Your task to perform on an android device: What's the news in theFalkland Islands? Image 0: 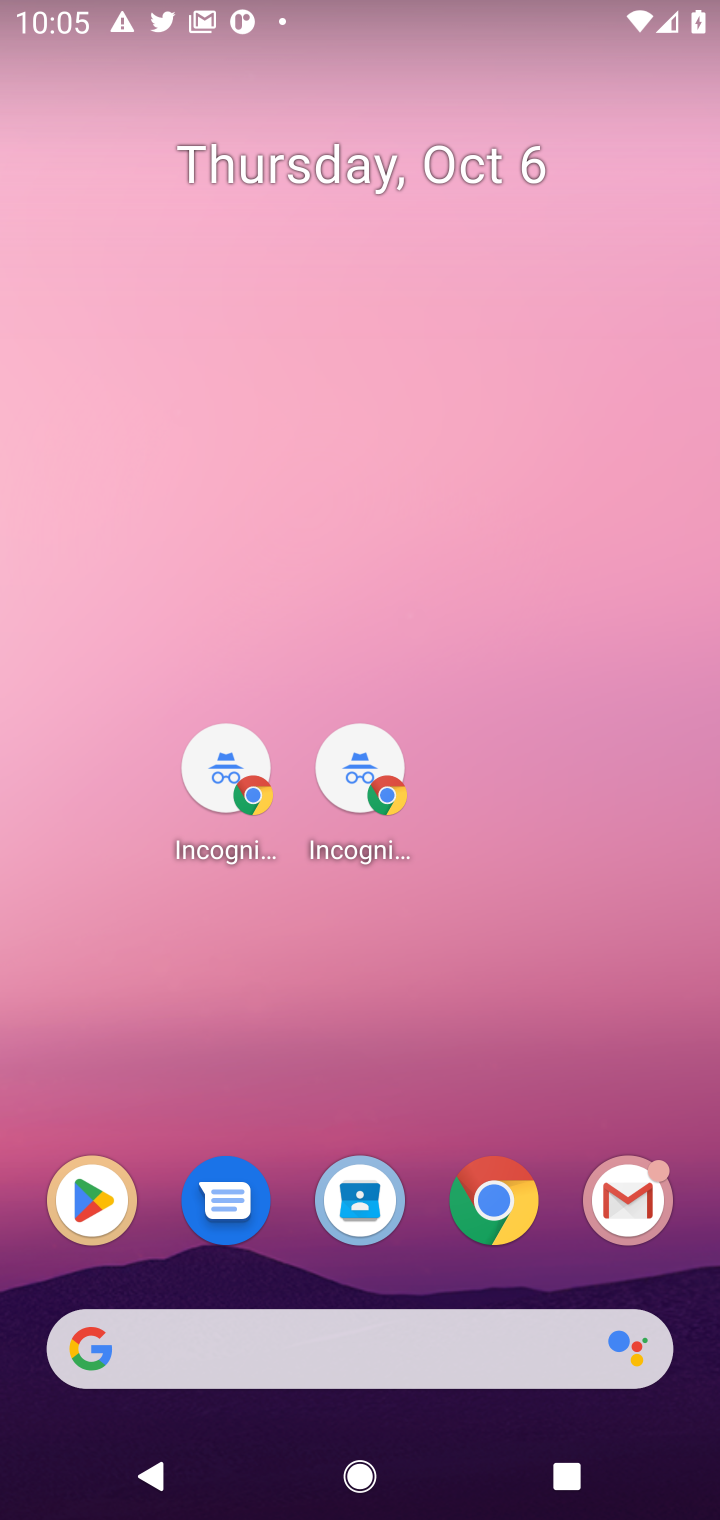
Step 0: press back button
Your task to perform on an android device: What's the news in theFalkland Islands? Image 1: 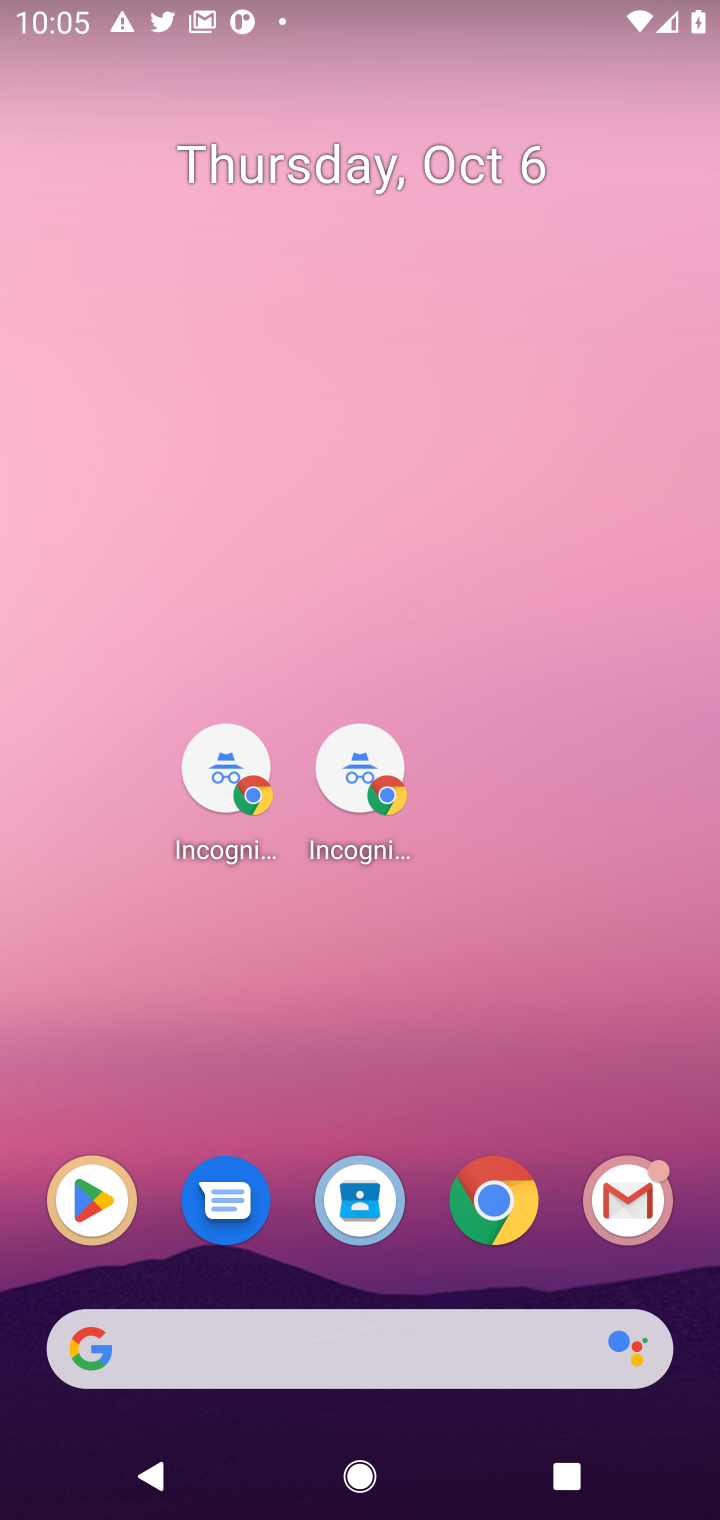
Step 1: press home button
Your task to perform on an android device: What's the news in theFalkland Islands? Image 2: 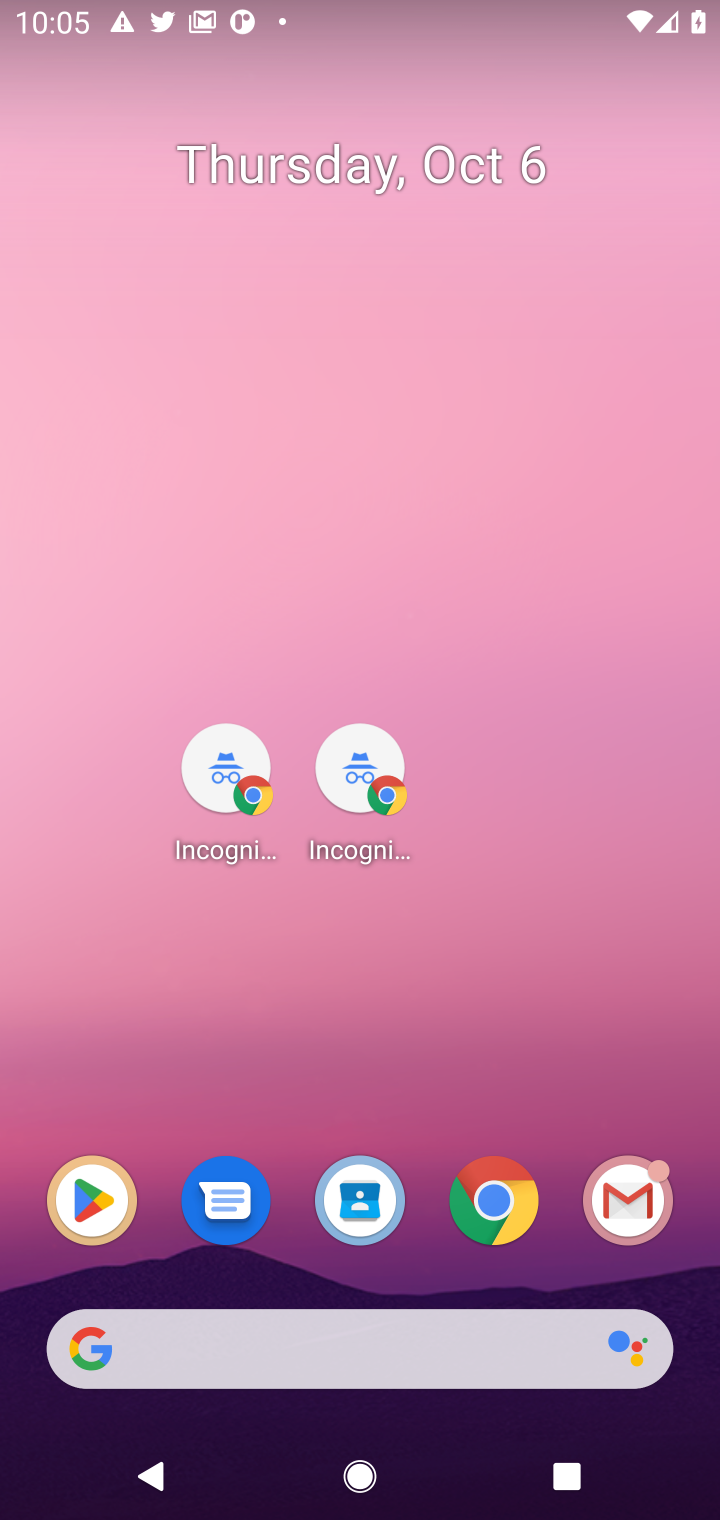
Step 2: click (491, 1193)
Your task to perform on an android device: What's the news in theFalkland Islands? Image 3: 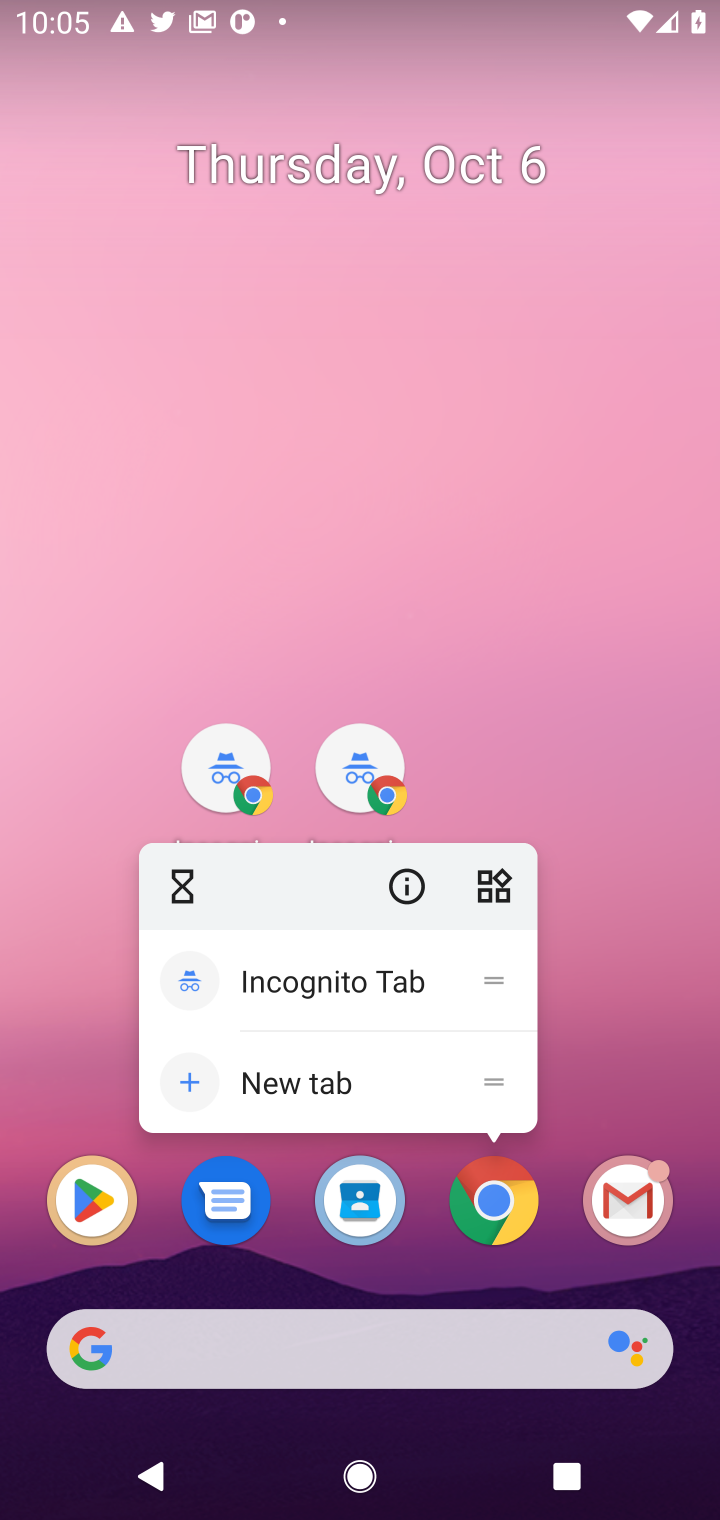
Step 3: press back button
Your task to perform on an android device: What's the news in theFalkland Islands? Image 4: 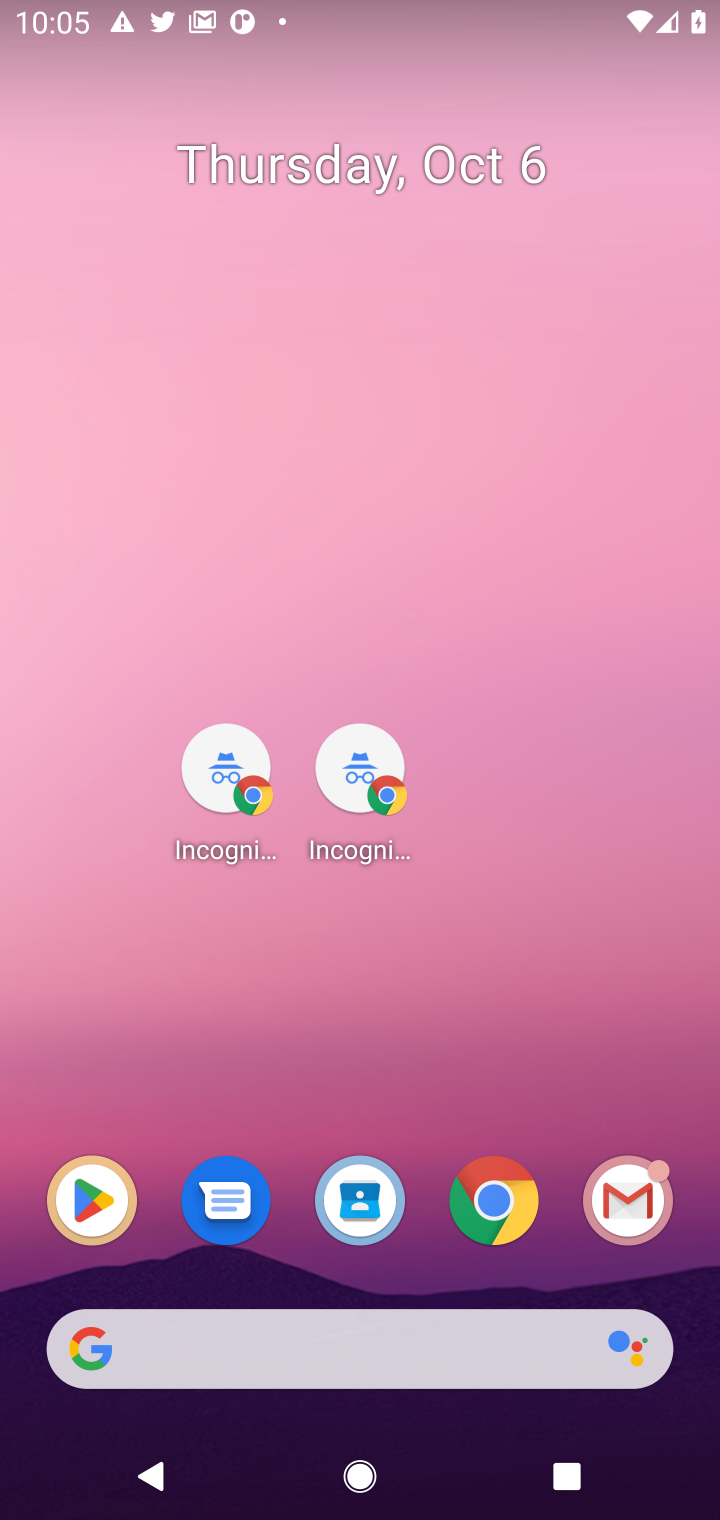
Step 4: press home button
Your task to perform on an android device: What's the news in theFalkland Islands? Image 5: 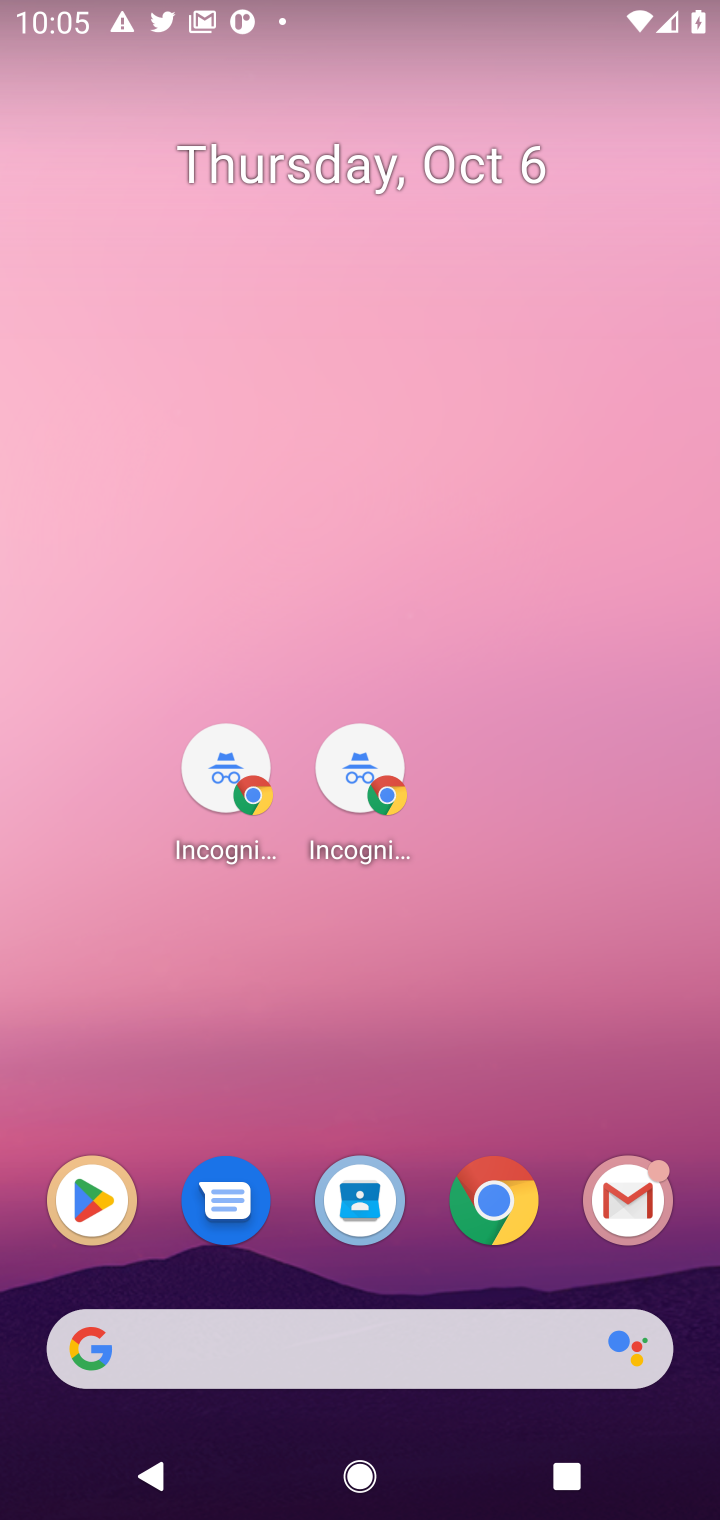
Step 5: press home button
Your task to perform on an android device: What's the news in theFalkland Islands? Image 6: 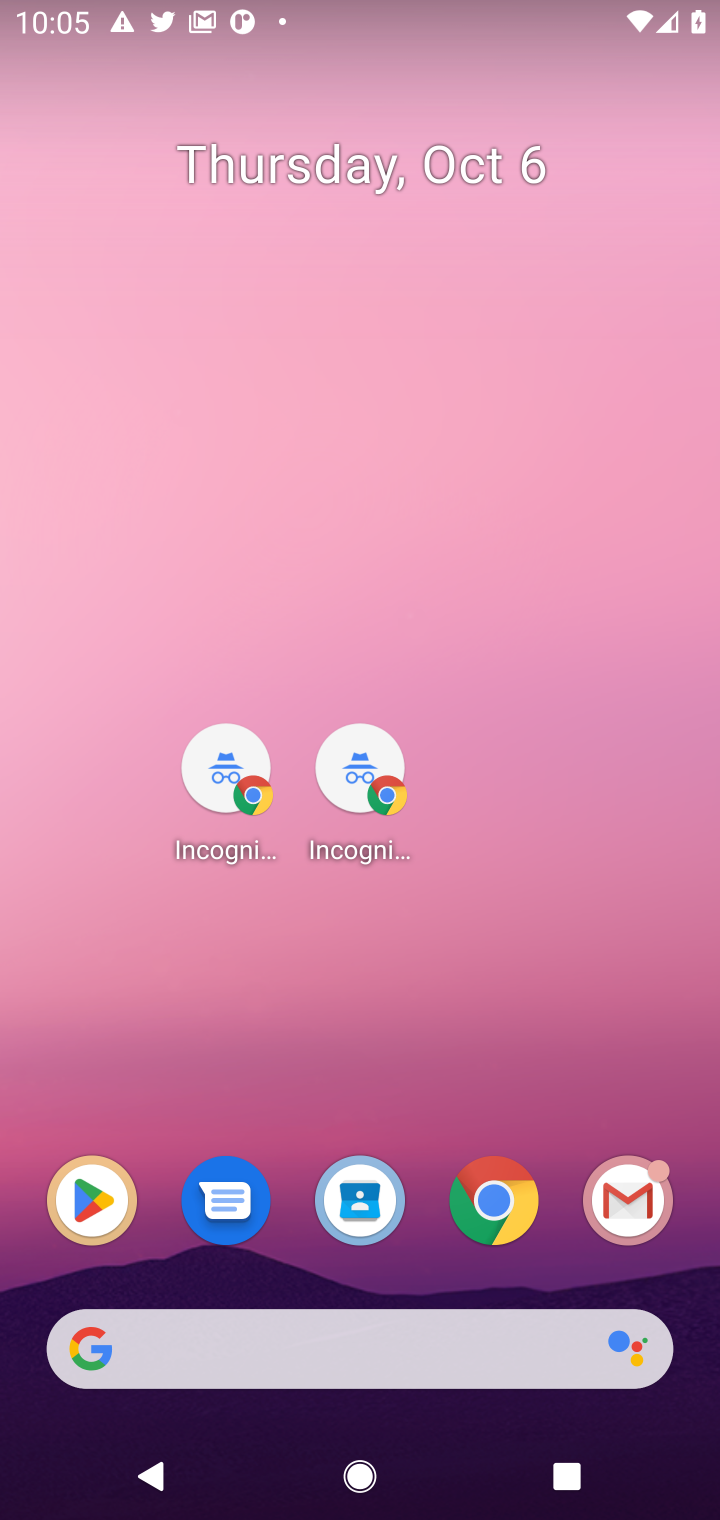
Step 6: click (503, 1204)
Your task to perform on an android device: What's the news in theFalkland Islands? Image 7: 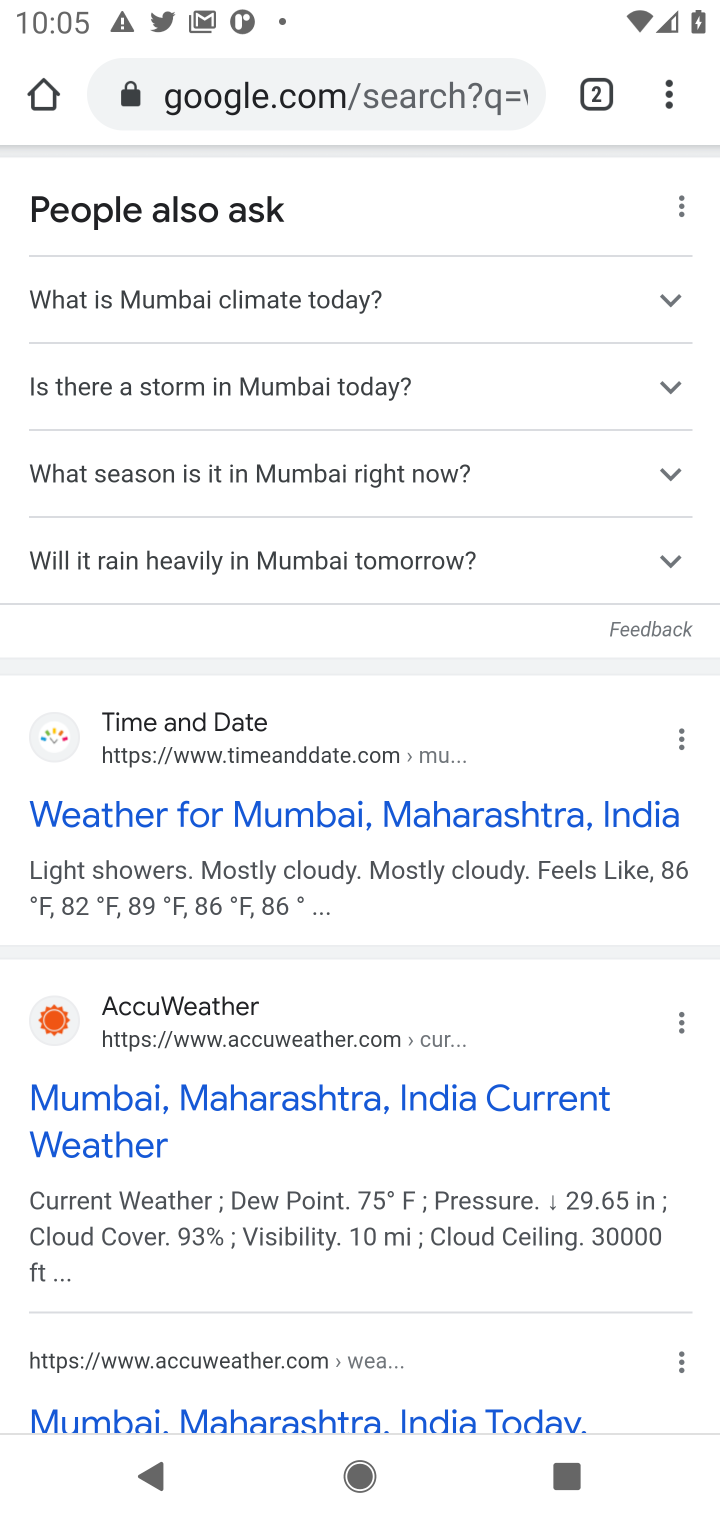
Step 7: click (316, 85)
Your task to perform on an android device: What's the news in theFalkland Islands? Image 8: 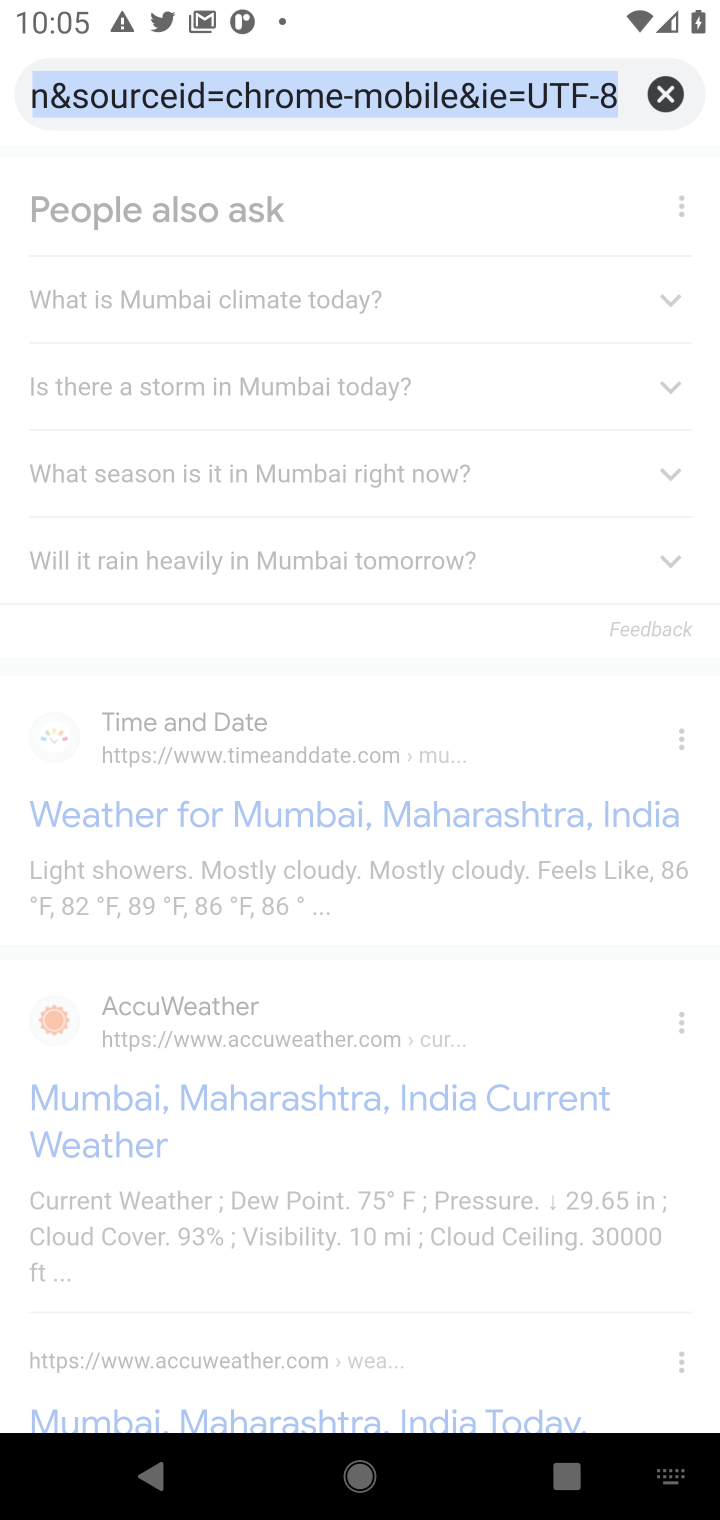
Step 8: click (663, 91)
Your task to perform on an android device: What's the news in theFalkland Islands? Image 9: 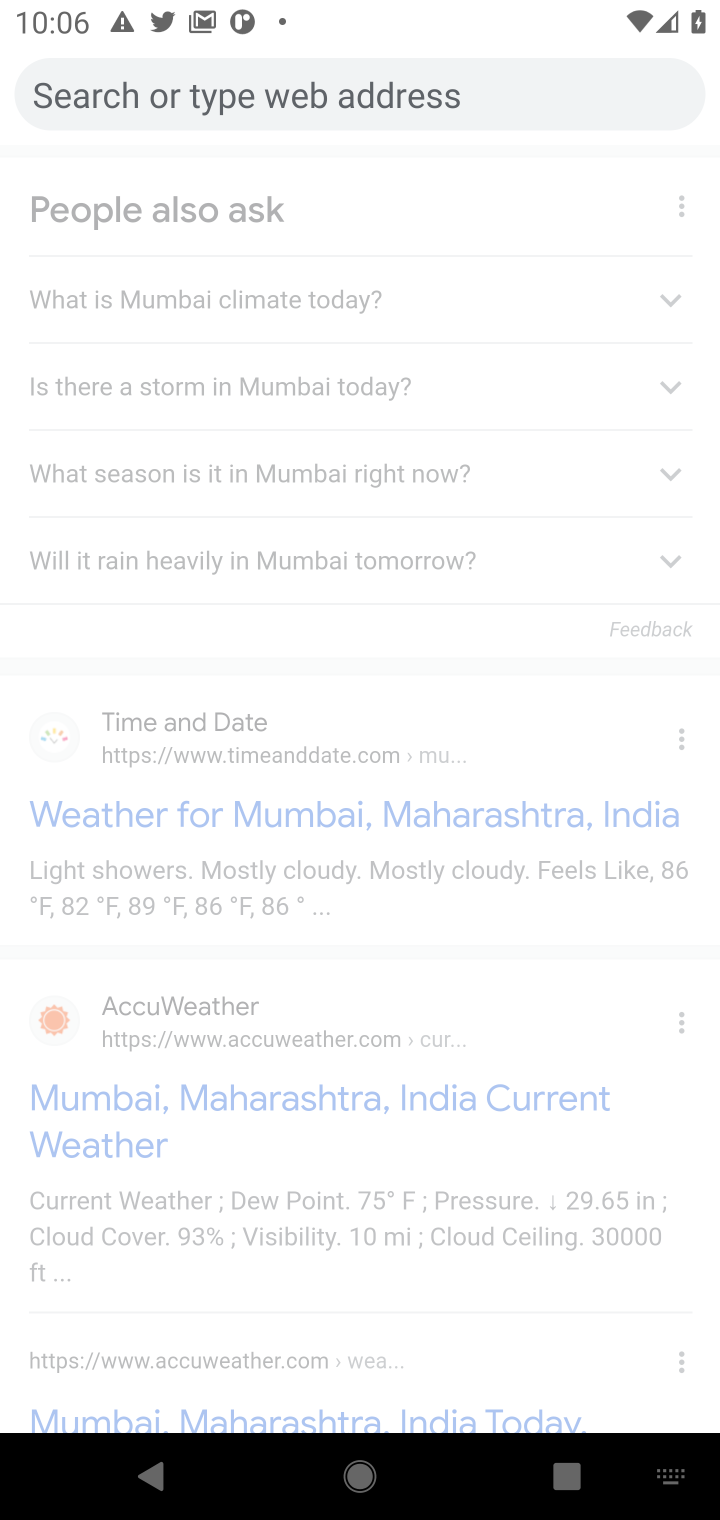
Step 9: type "new in the falkland islands"
Your task to perform on an android device: What's the news in theFalkland Islands? Image 10: 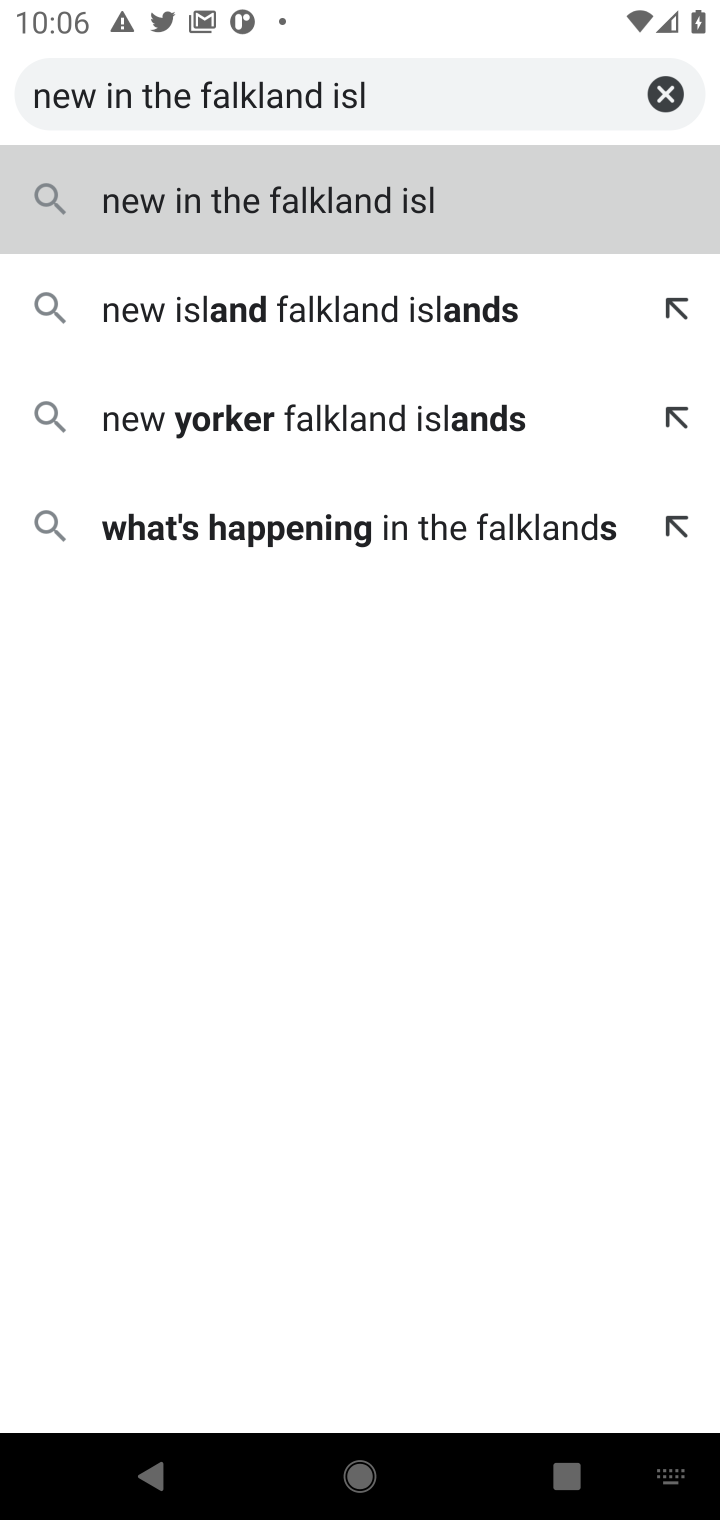
Step 10: click (300, 321)
Your task to perform on an android device: What's the news in theFalkland Islands? Image 11: 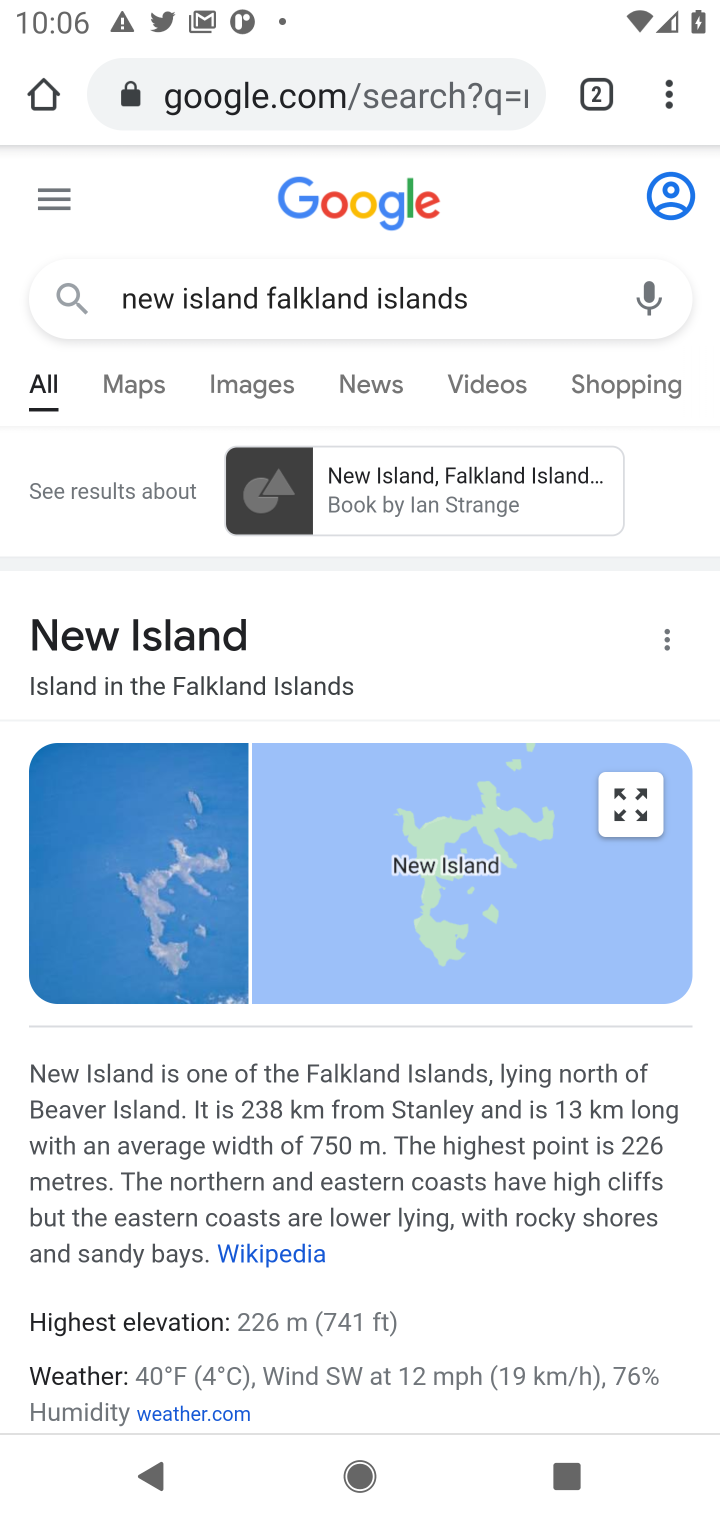
Step 11: drag from (464, 1309) to (508, 448)
Your task to perform on an android device: What's the news in theFalkland Islands? Image 12: 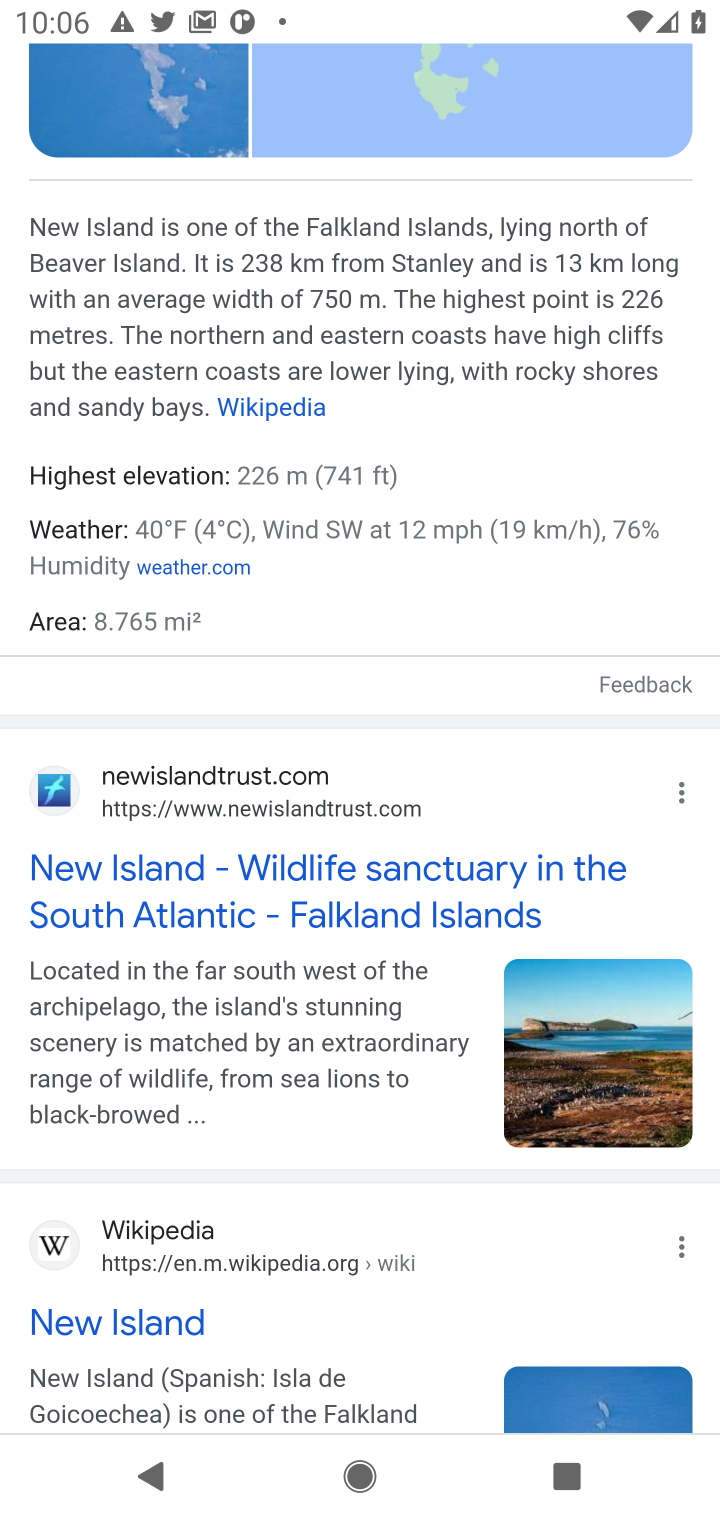
Step 12: click (281, 835)
Your task to perform on an android device: What's the news in theFalkland Islands? Image 13: 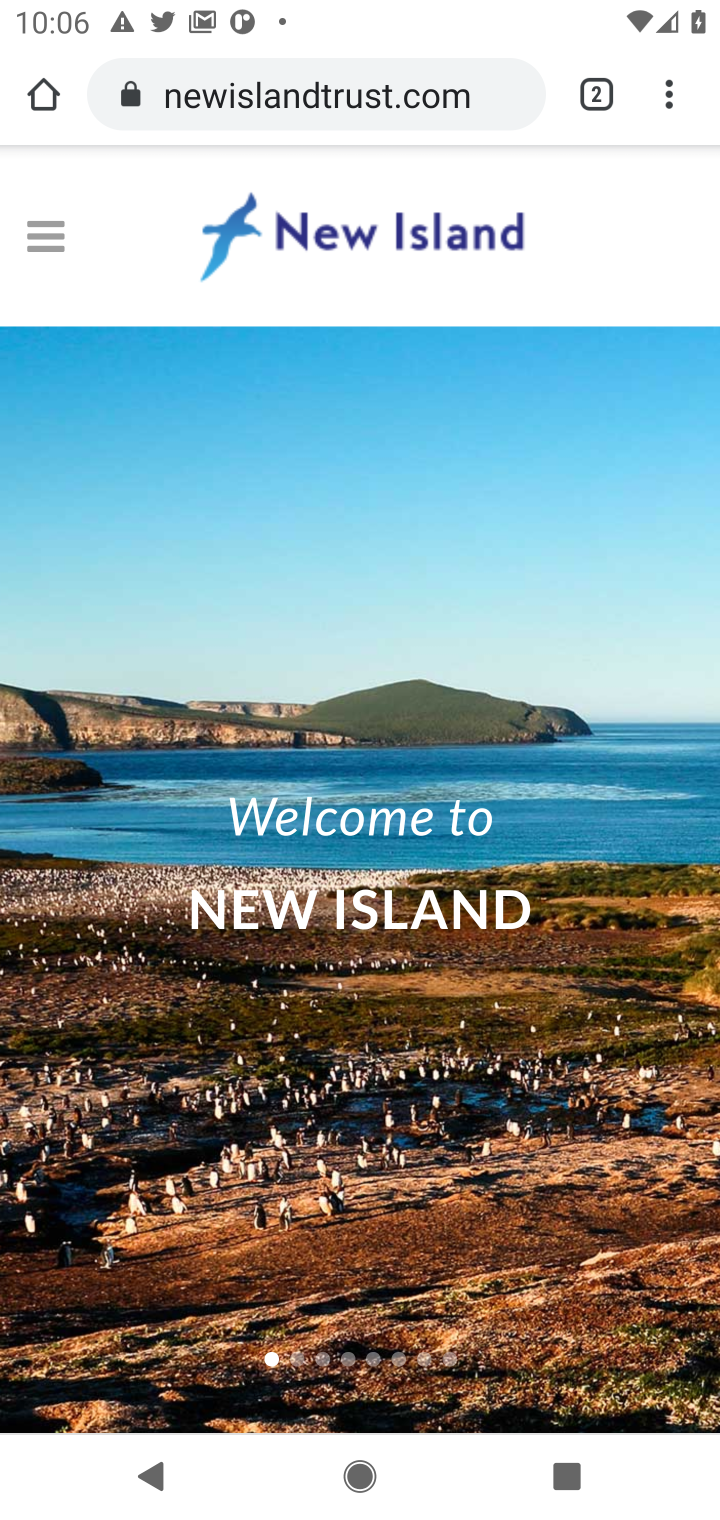
Step 13: drag from (377, 1110) to (417, 603)
Your task to perform on an android device: What's the news in theFalkland Islands? Image 14: 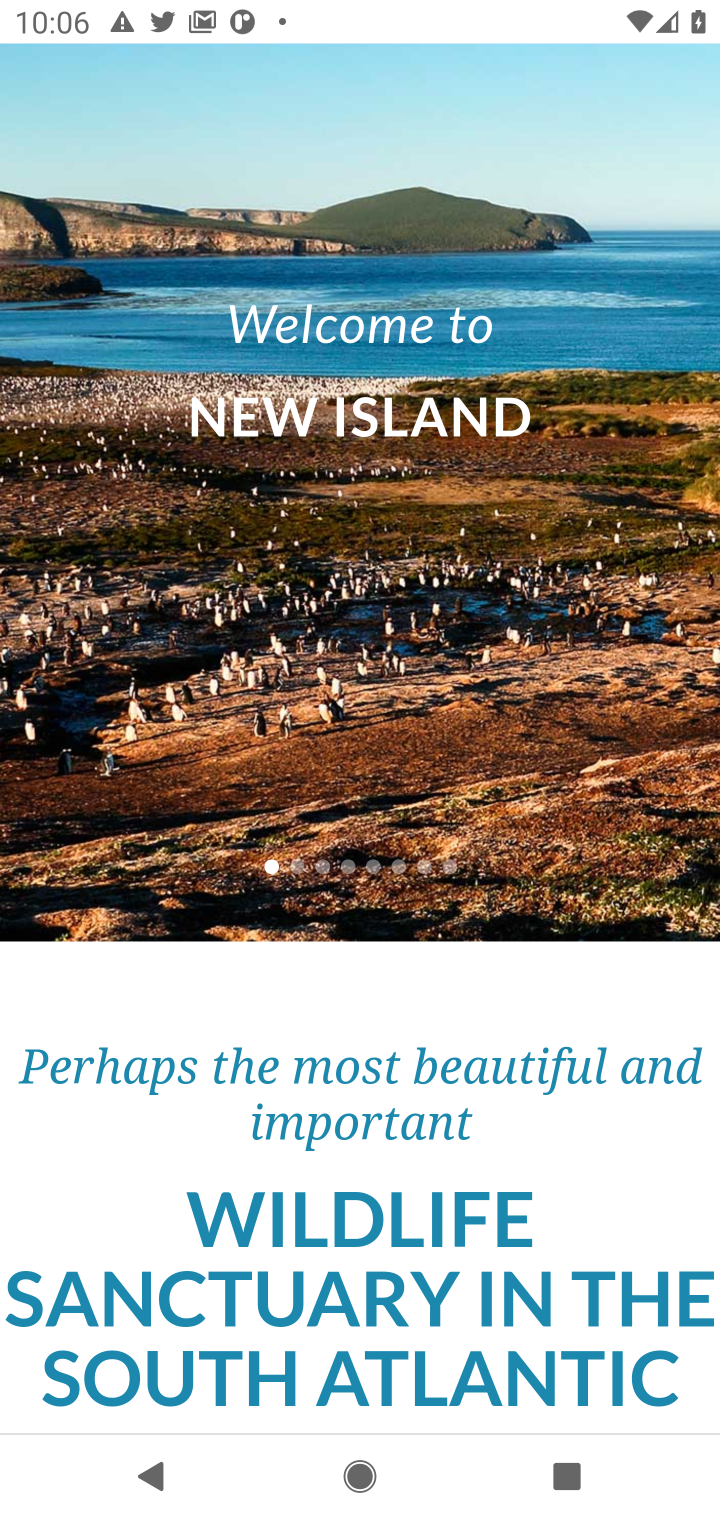
Step 14: drag from (697, 890) to (308, 1513)
Your task to perform on an android device: What's the news in theFalkland Islands? Image 15: 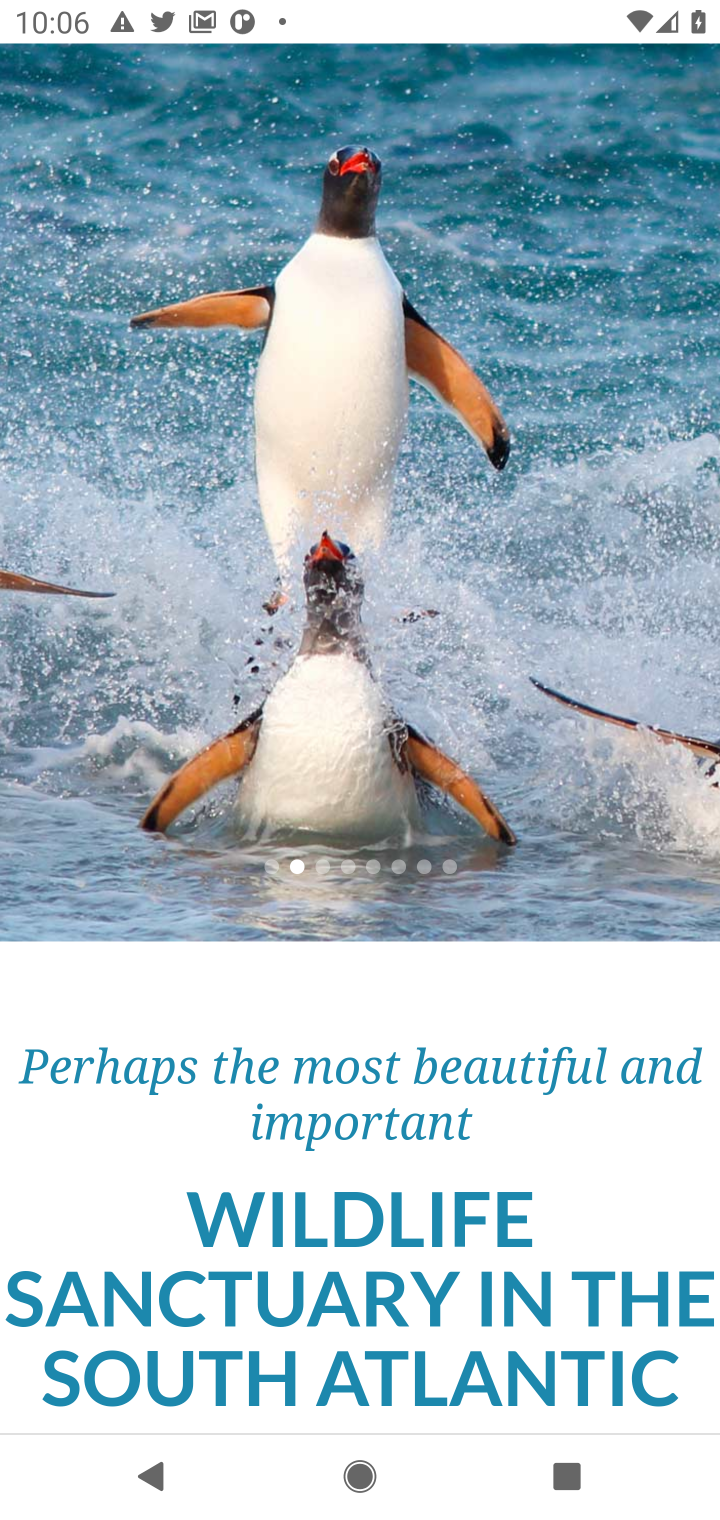
Step 15: drag from (513, 699) to (509, 344)
Your task to perform on an android device: What's the news in theFalkland Islands? Image 16: 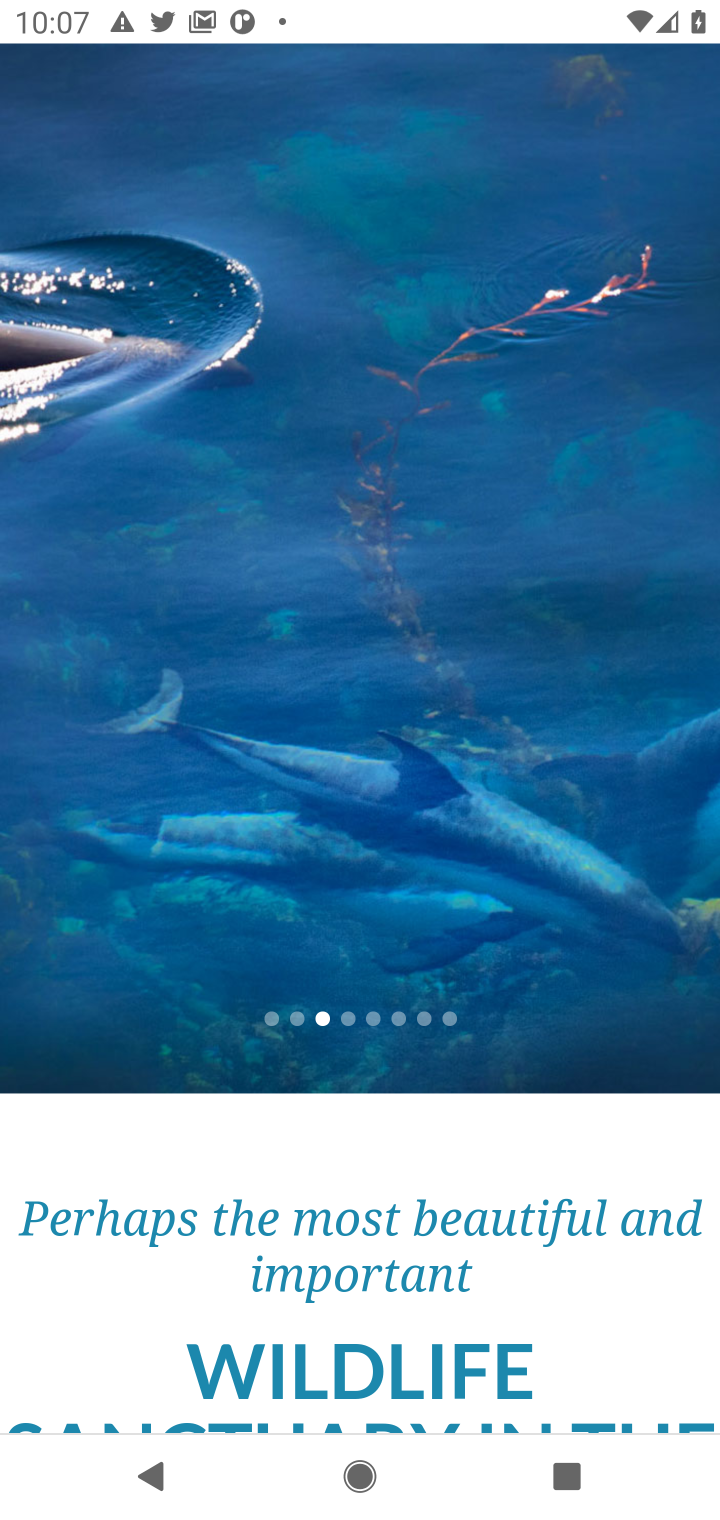
Step 16: click (334, 208)
Your task to perform on an android device: What's the news in theFalkland Islands? Image 17: 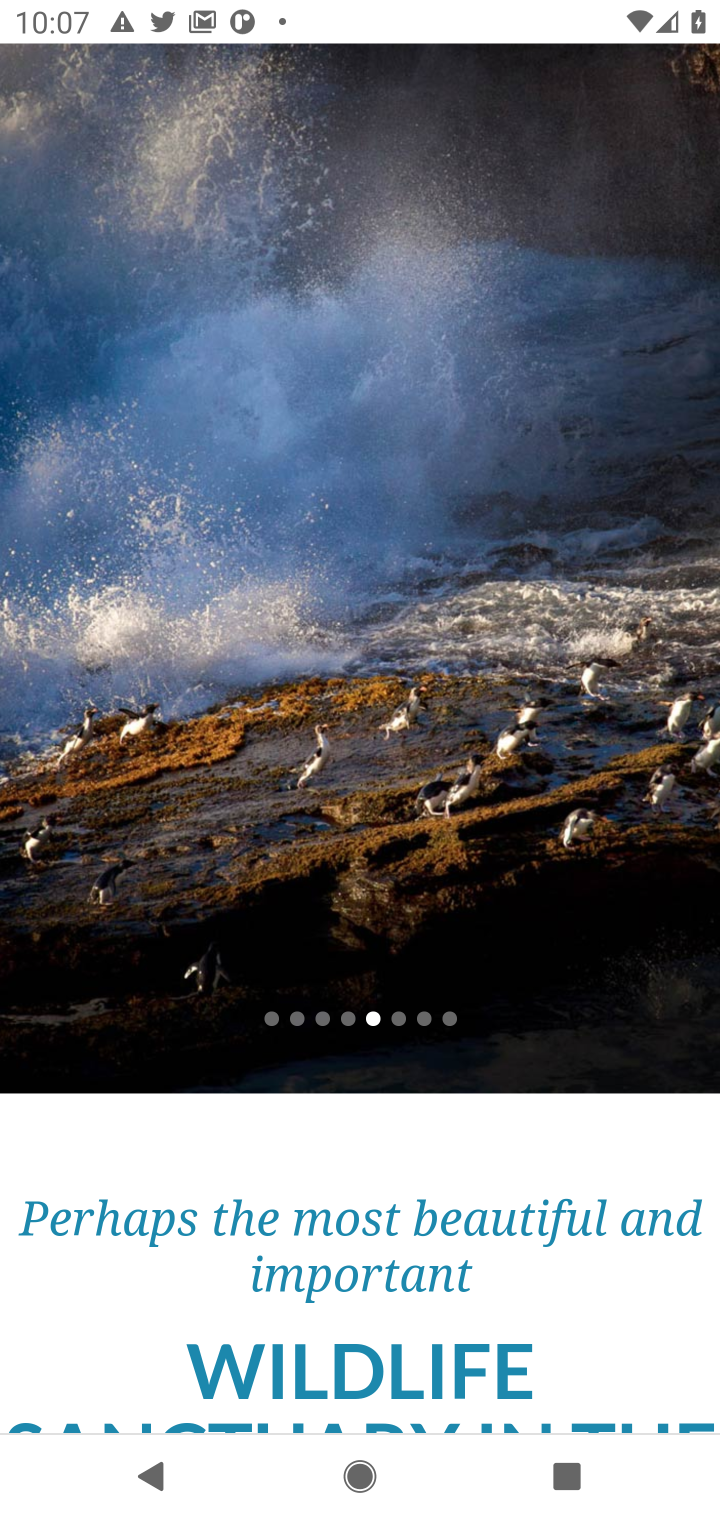
Step 17: drag from (211, 924) to (248, 424)
Your task to perform on an android device: What's the news in theFalkland Islands? Image 18: 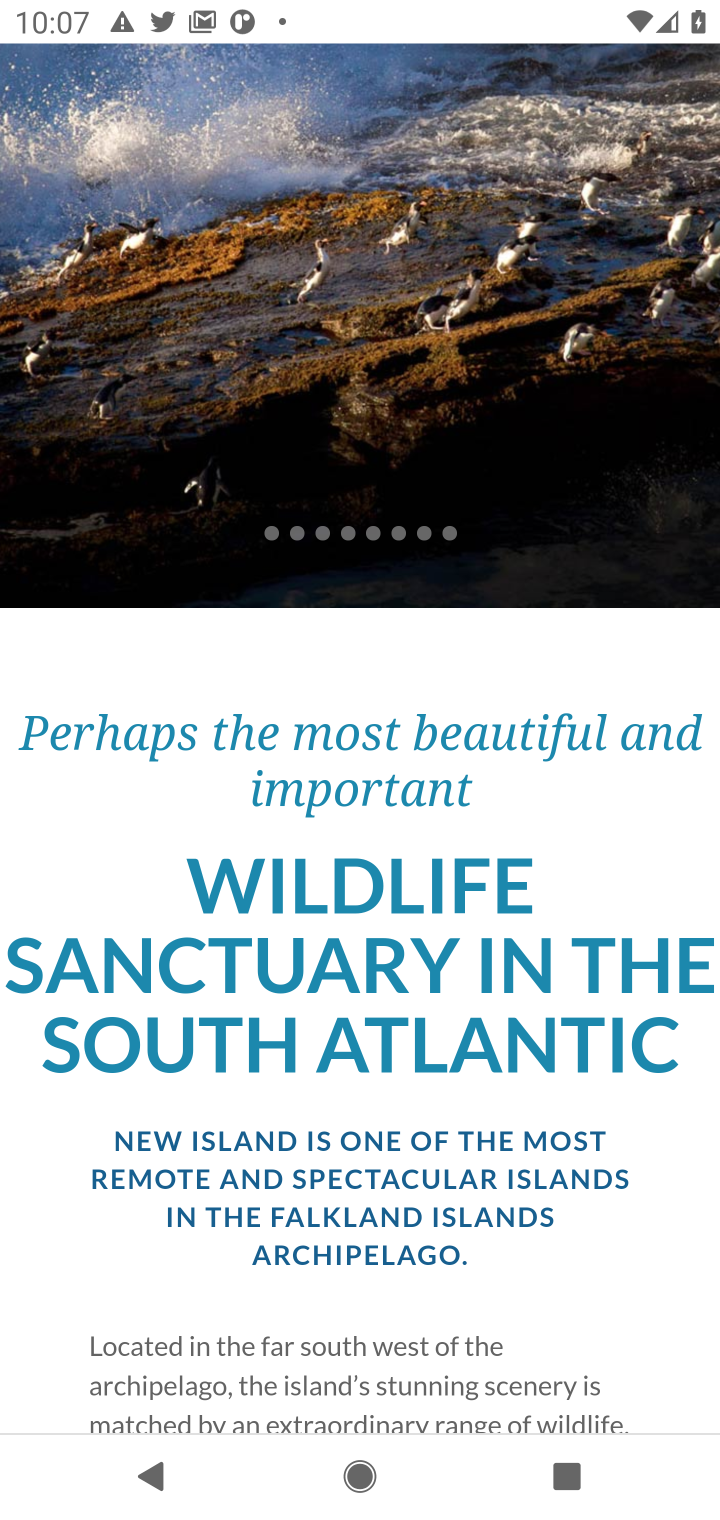
Step 18: drag from (291, 1298) to (503, 387)
Your task to perform on an android device: What's the news in theFalkland Islands? Image 19: 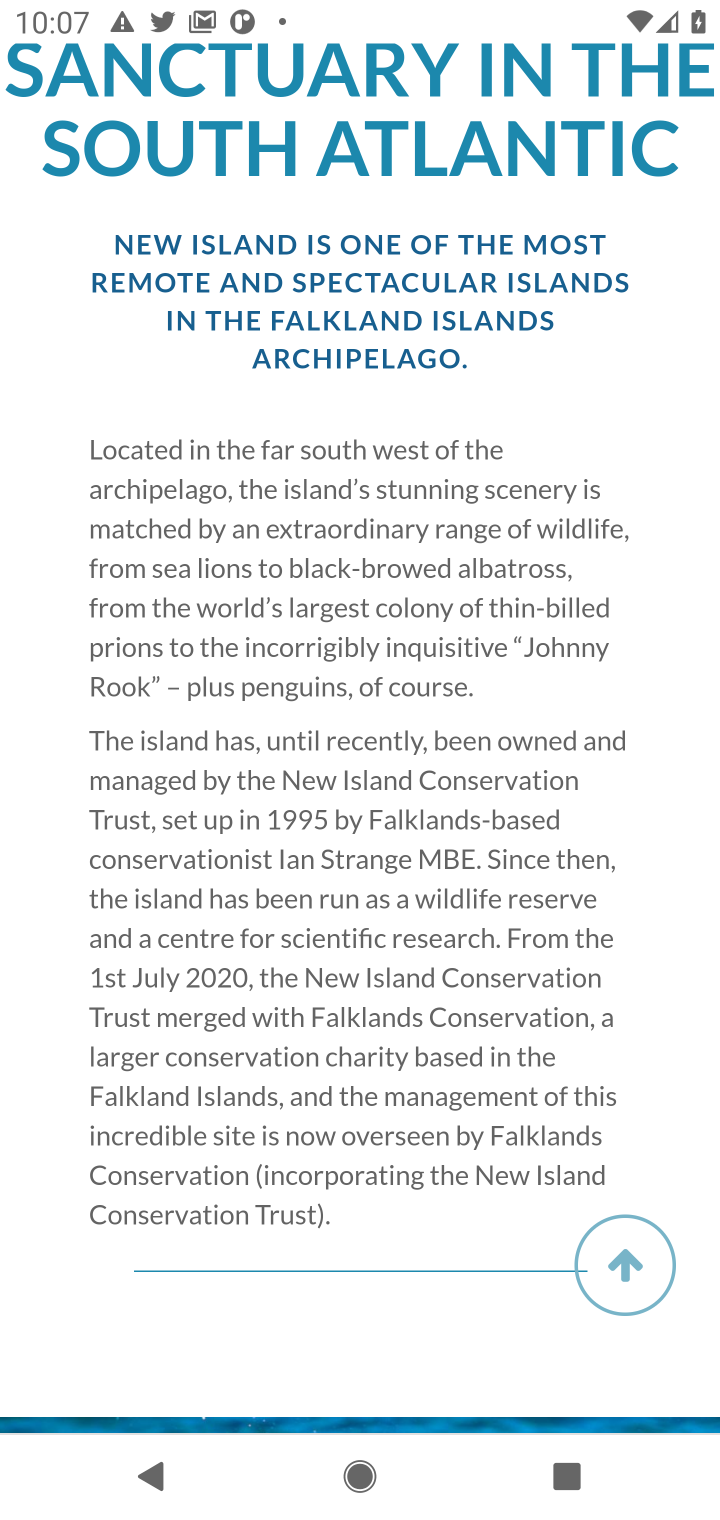
Step 19: drag from (314, 1191) to (349, 461)
Your task to perform on an android device: What's the news in theFalkland Islands? Image 20: 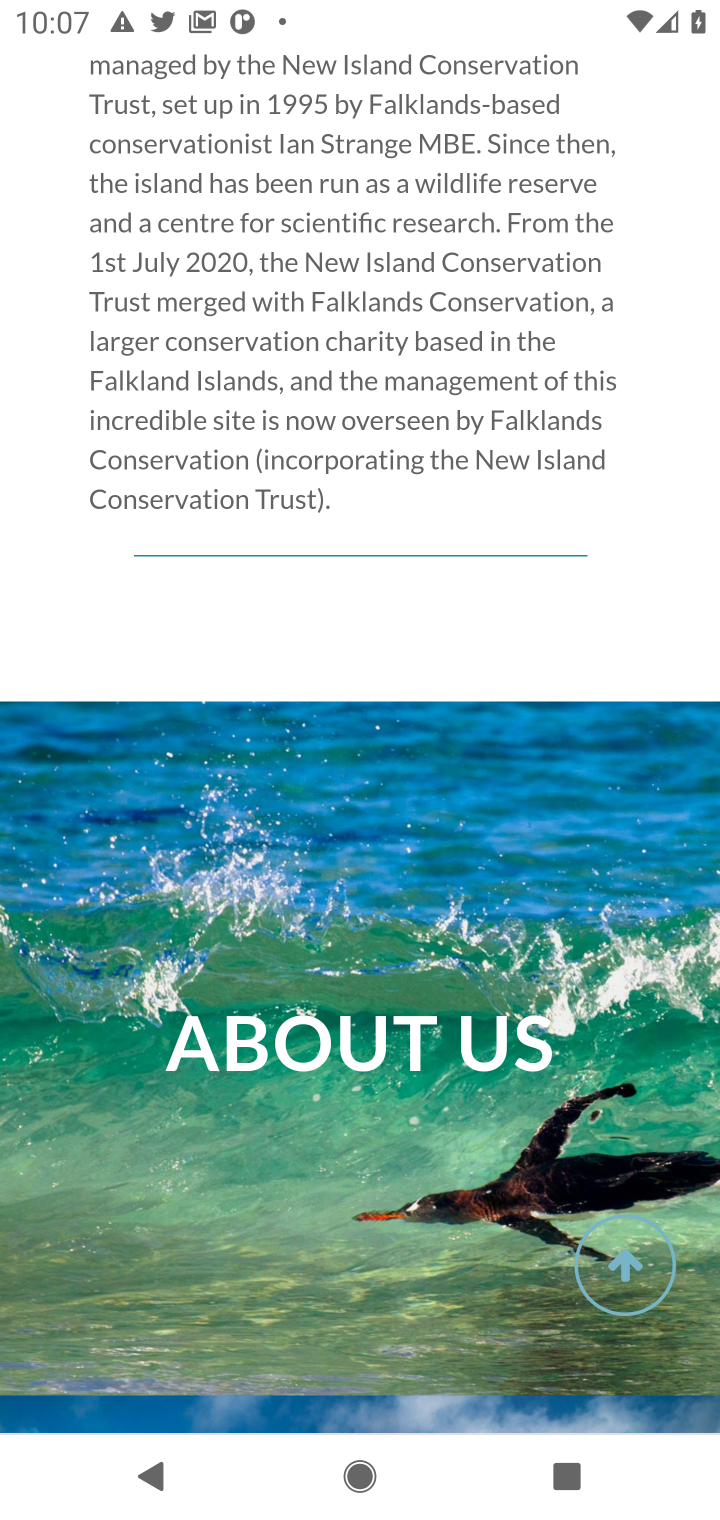
Step 20: drag from (340, 594) to (362, 418)
Your task to perform on an android device: What's the news in theFalkland Islands? Image 21: 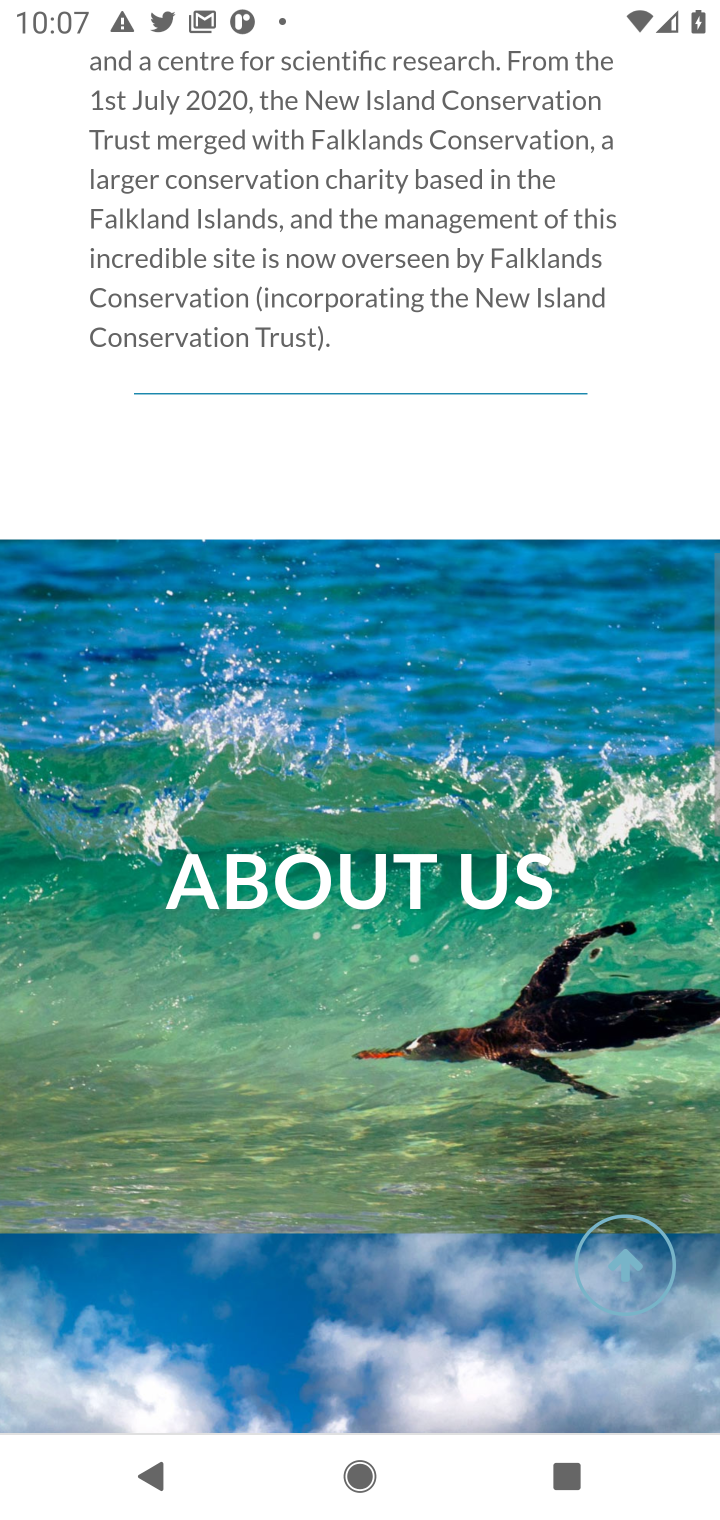
Step 21: drag from (286, 437) to (97, 1478)
Your task to perform on an android device: What's the news in theFalkland Islands? Image 22: 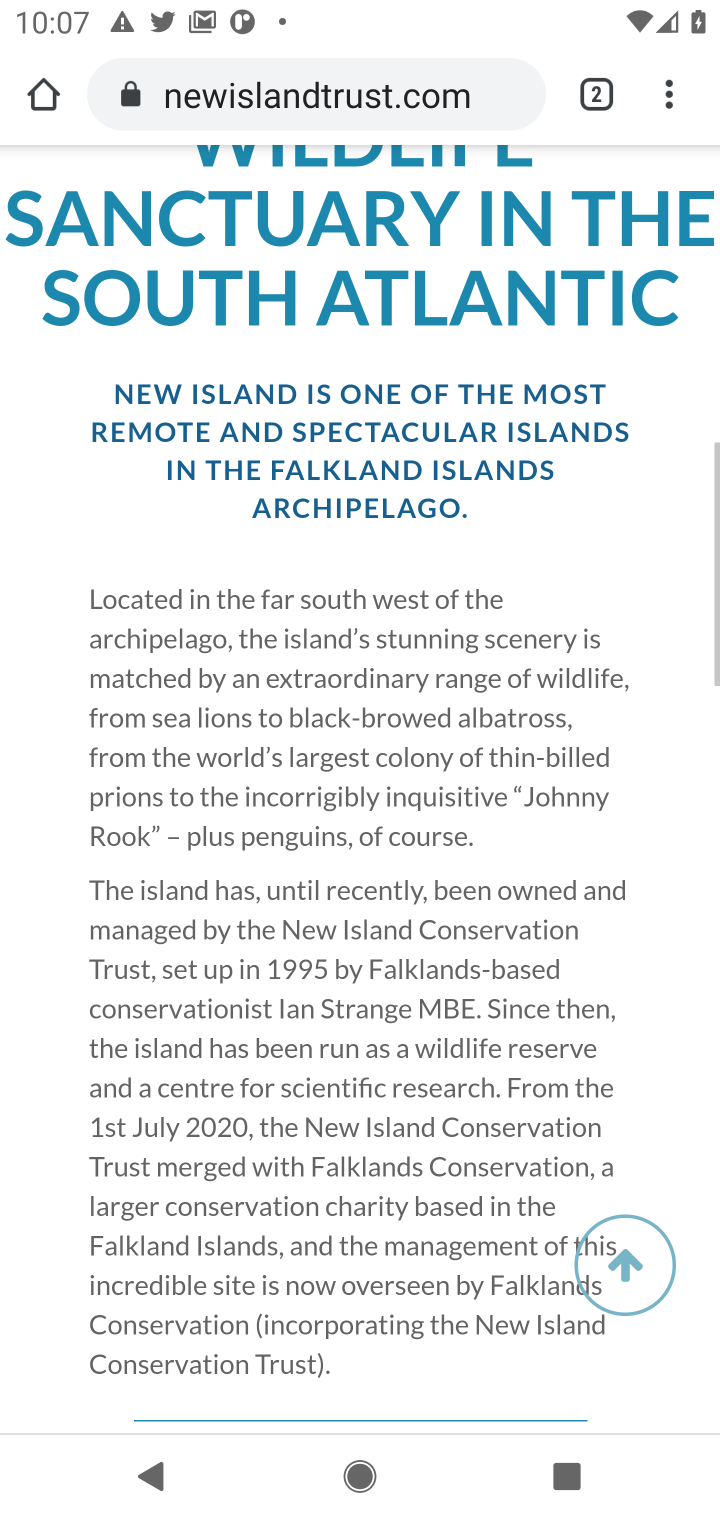
Step 22: drag from (276, 716) to (284, 1267)
Your task to perform on an android device: What's the news in theFalkland Islands? Image 23: 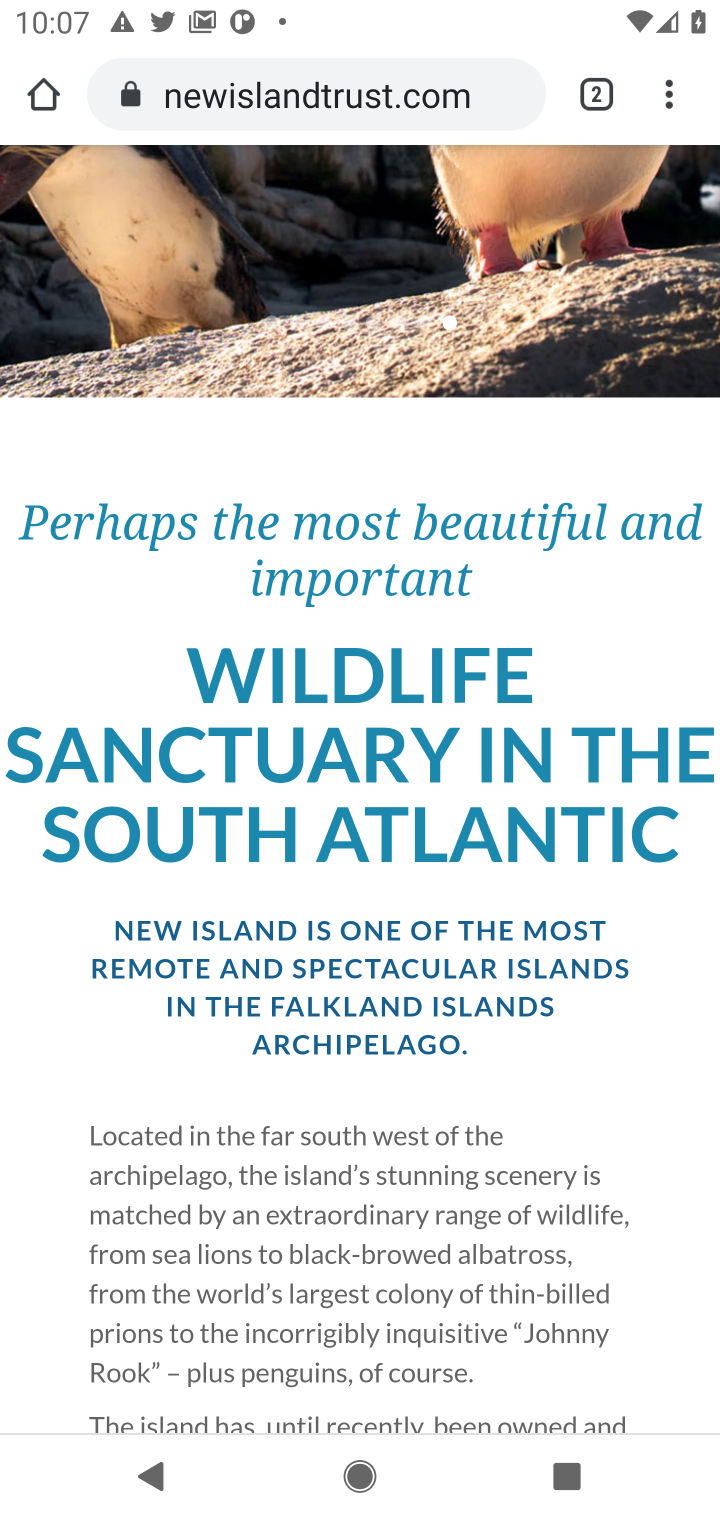
Step 23: drag from (399, 555) to (483, 1066)
Your task to perform on an android device: What's the news in theFalkland Islands? Image 24: 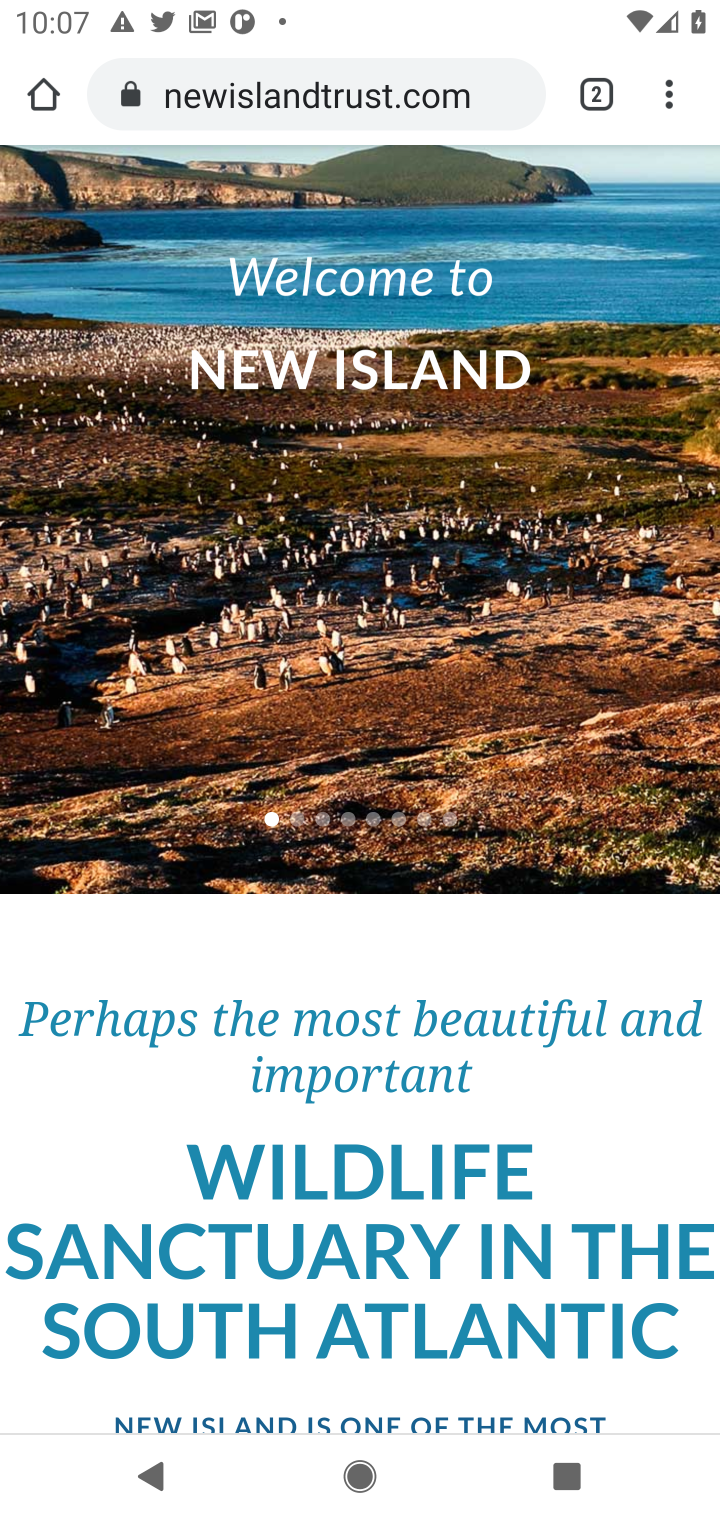
Step 24: drag from (434, 374) to (509, 1154)
Your task to perform on an android device: What's the news in theFalkland Islands? Image 25: 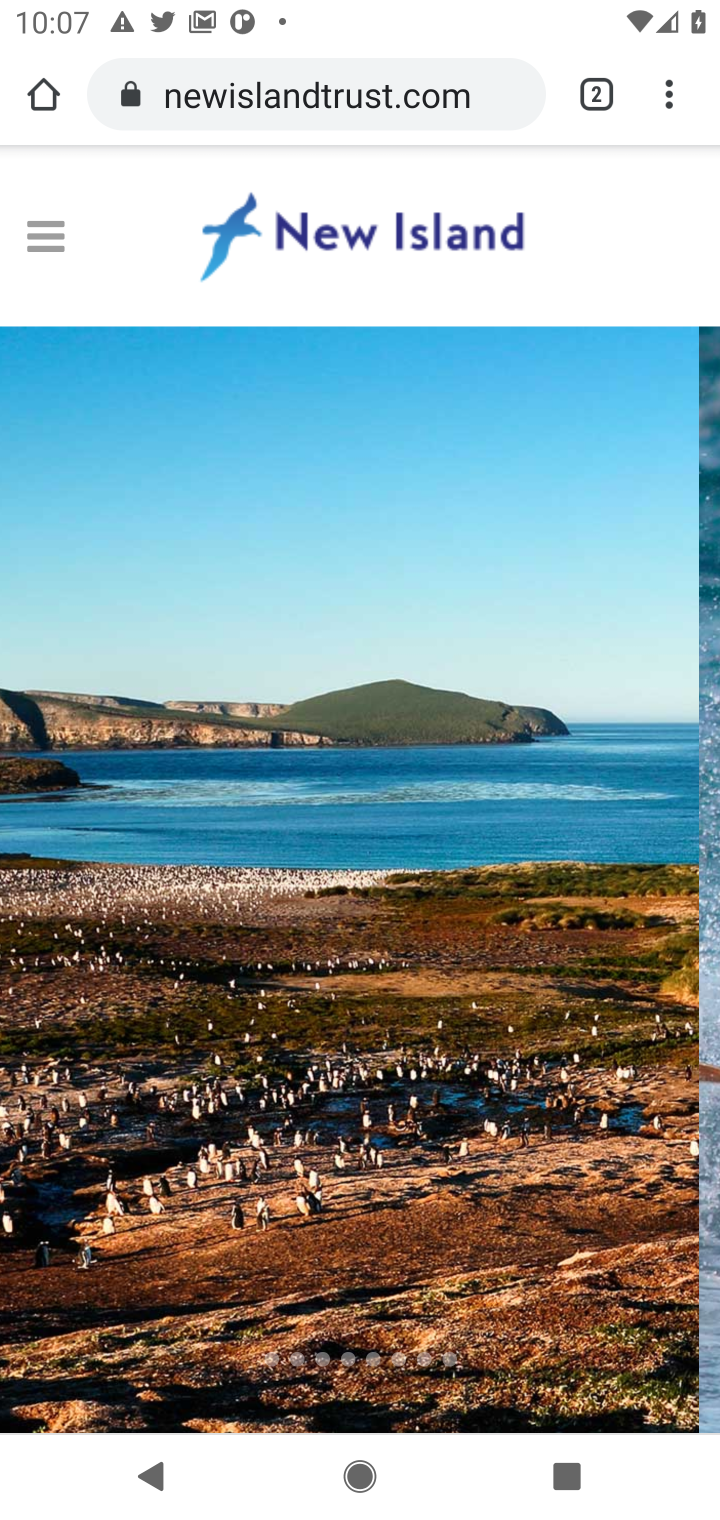
Step 25: click (357, 1134)
Your task to perform on an android device: What's the news in theFalkland Islands? Image 26: 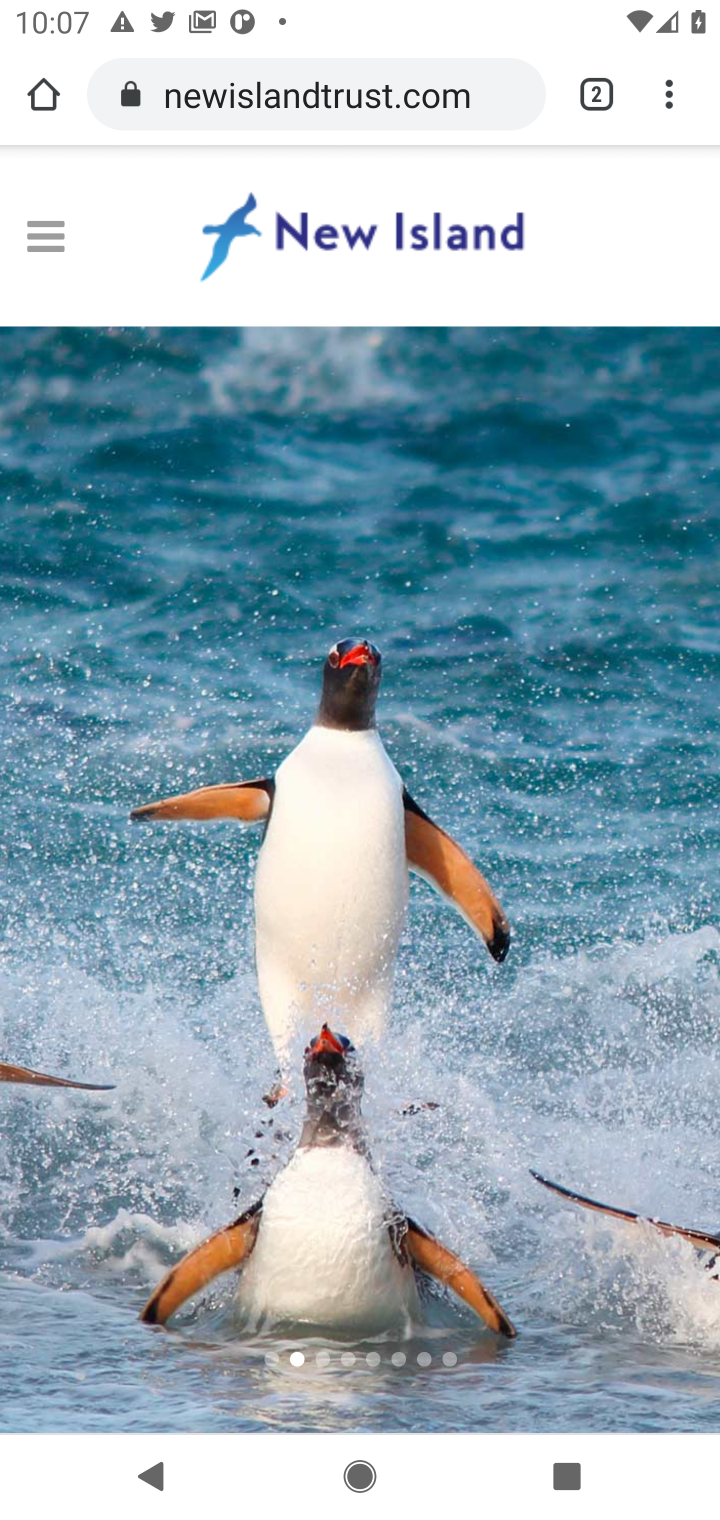
Step 26: click (0, 836)
Your task to perform on an android device: What's the news in theFalkland Islands? Image 27: 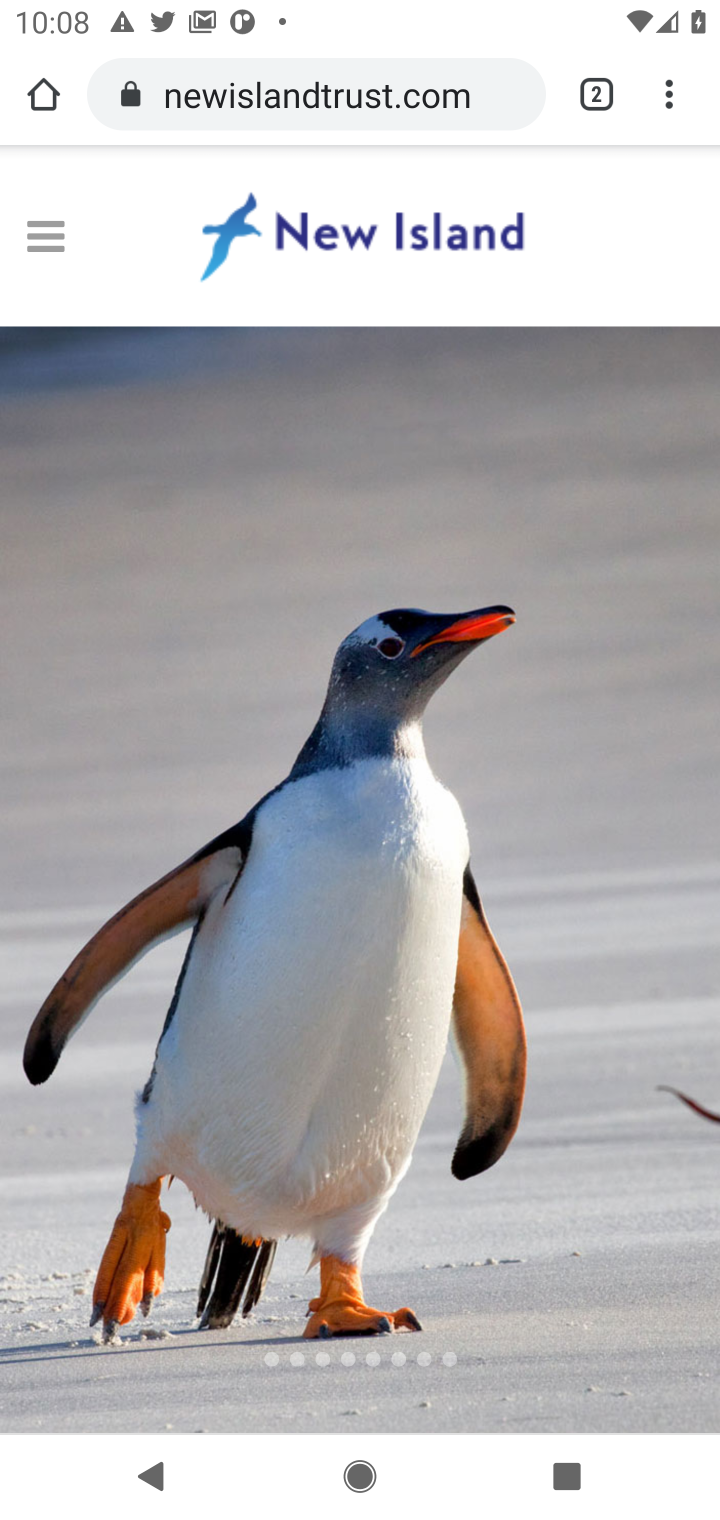
Step 27: task complete